Your task to perform on an android device: Go to settings Image 0: 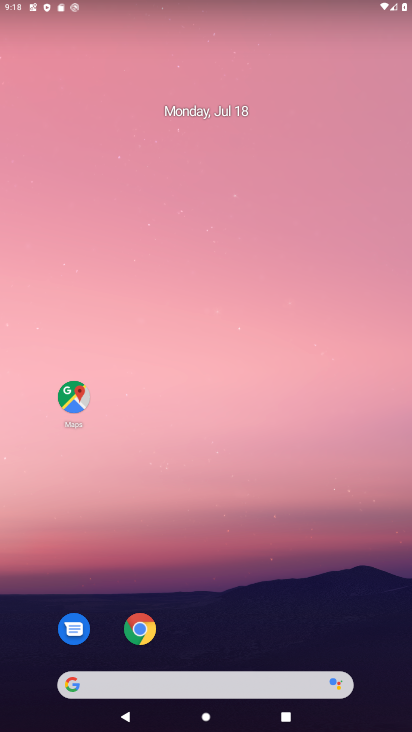
Step 0: drag from (296, 321) to (317, 83)
Your task to perform on an android device: Go to settings Image 1: 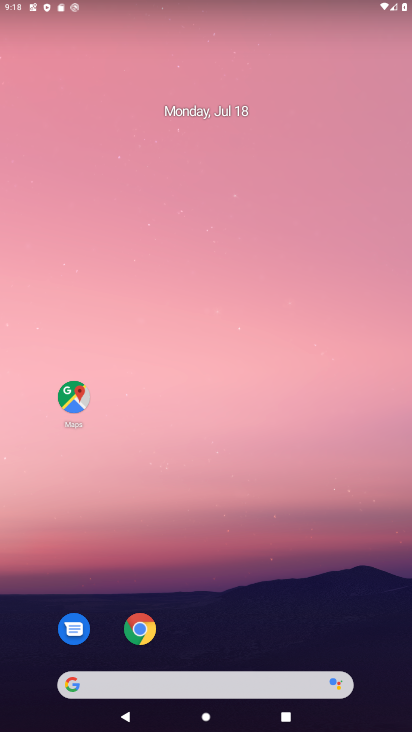
Step 1: drag from (303, 600) to (328, 61)
Your task to perform on an android device: Go to settings Image 2: 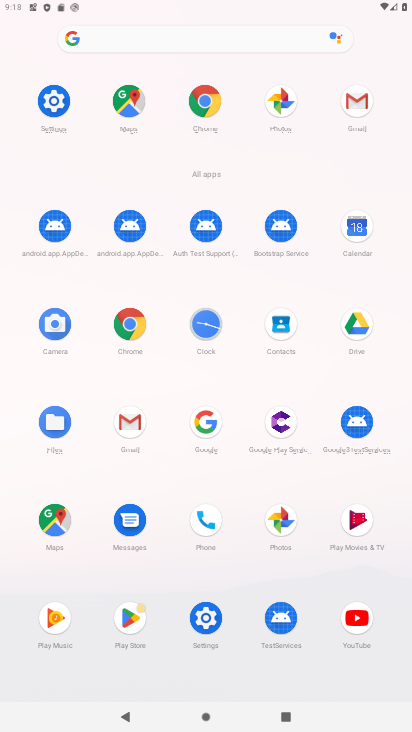
Step 2: click (204, 631)
Your task to perform on an android device: Go to settings Image 3: 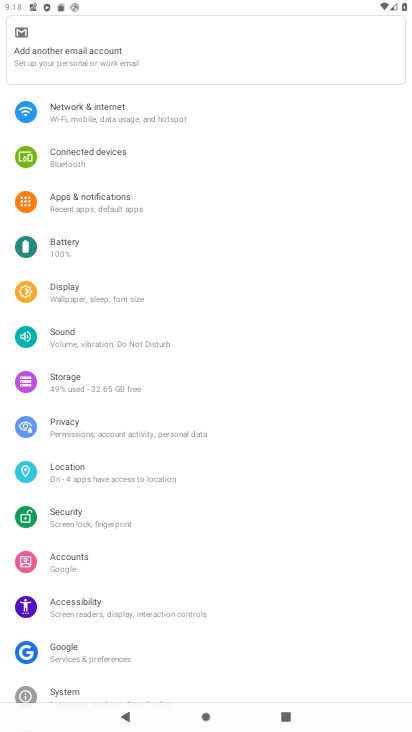
Step 3: task complete